Your task to perform on an android device: change text size in settings app Image 0: 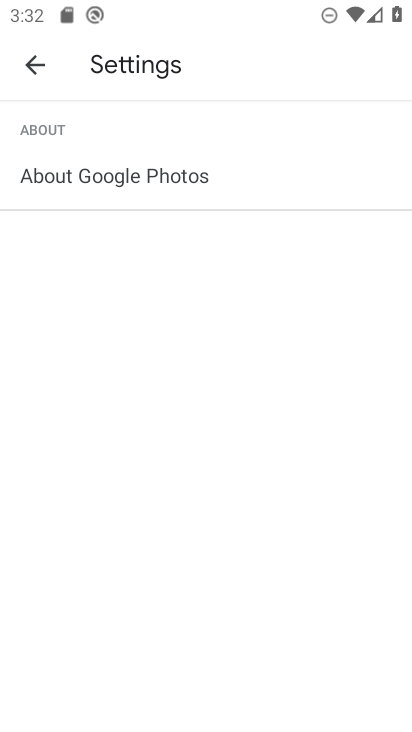
Step 0: press home button
Your task to perform on an android device: change text size in settings app Image 1: 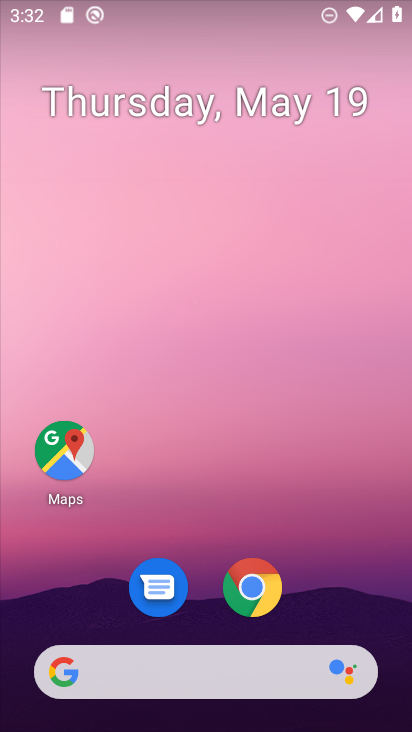
Step 1: drag from (361, 601) to (365, 164)
Your task to perform on an android device: change text size in settings app Image 2: 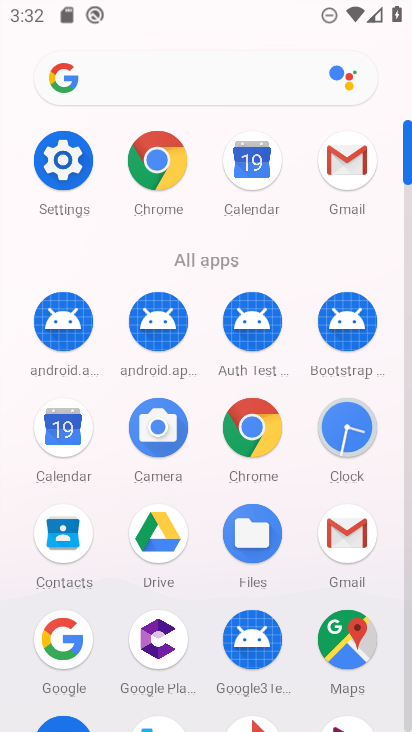
Step 2: click (57, 167)
Your task to perform on an android device: change text size in settings app Image 3: 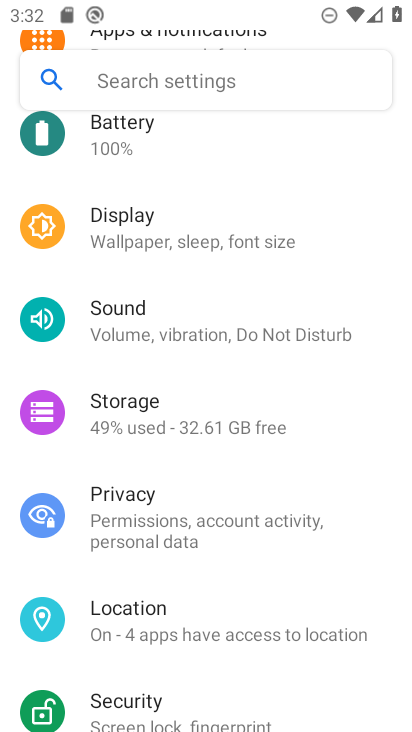
Step 3: drag from (376, 328) to (376, 433)
Your task to perform on an android device: change text size in settings app Image 4: 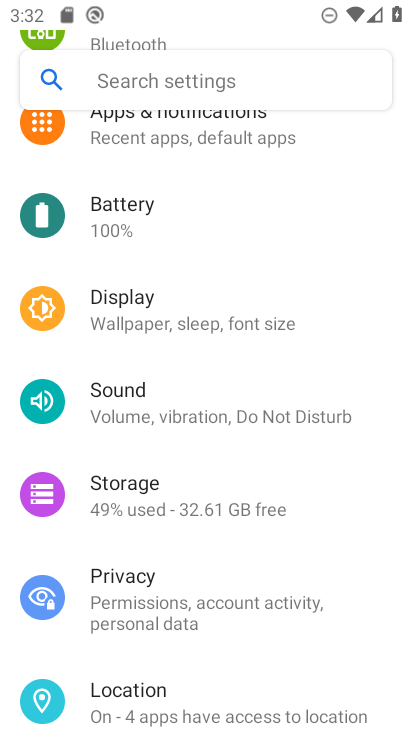
Step 4: drag from (376, 299) to (379, 386)
Your task to perform on an android device: change text size in settings app Image 5: 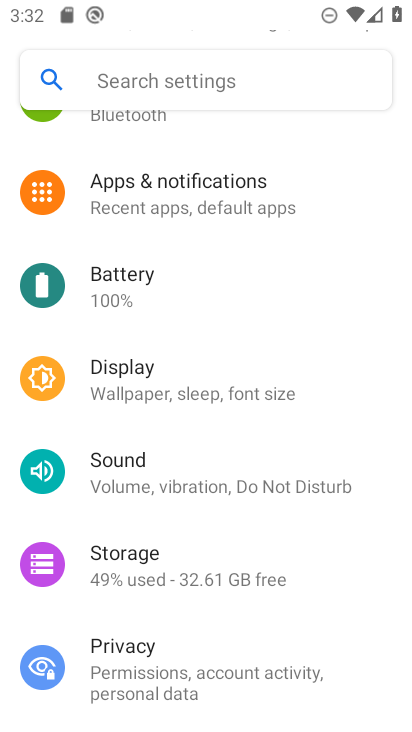
Step 5: drag from (374, 256) to (360, 385)
Your task to perform on an android device: change text size in settings app Image 6: 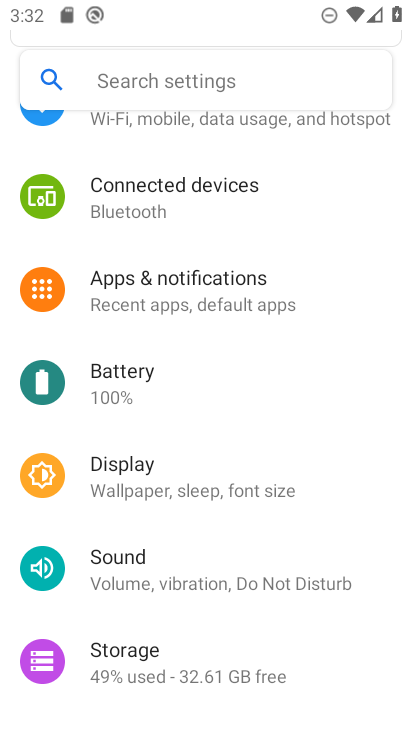
Step 6: drag from (350, 265) to (350, 362)
Your task to perform on an android device: change text size in settings app Image 7: 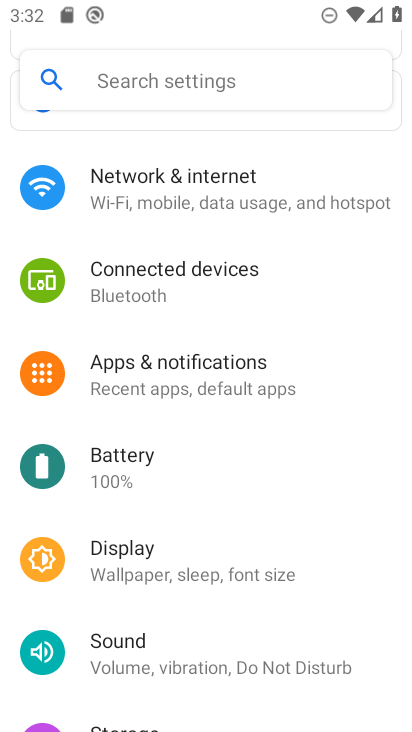
Step 7: drag from (339, 268) to (339, 386)
Your task to perform on an android device: change text size in settings app Image 8: 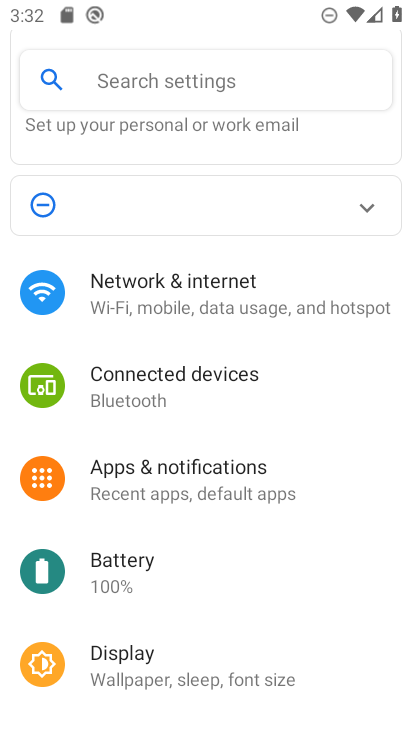
Step 8: drag from (341, 476) to (332, 357)
Your task to perform on an android device: change text size in settings app Image 9: 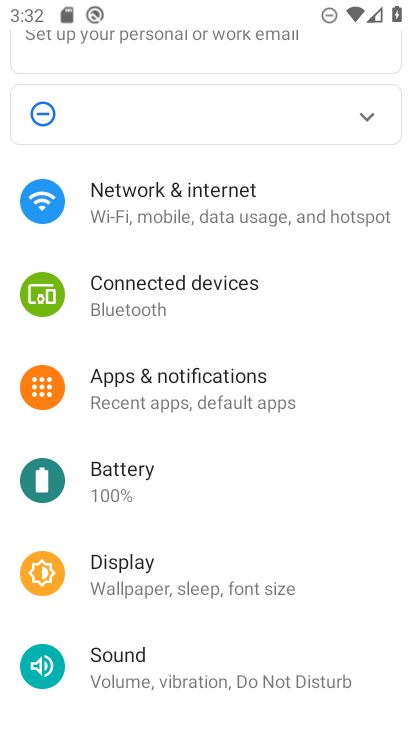
Step 9: drag from (341, 510) to (330, 409)
Your task to perform on an android device: change text size in settings app Image 10: 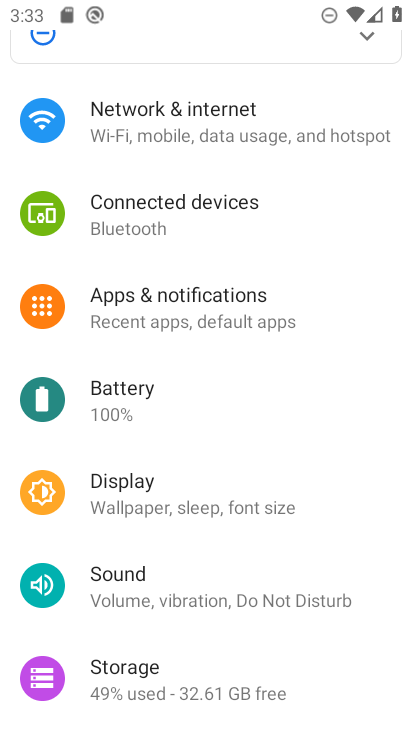
Step 10: drag from (343, 535) to (339, 431)
Your task to perform on an android device: change text size in settings app Image 11: 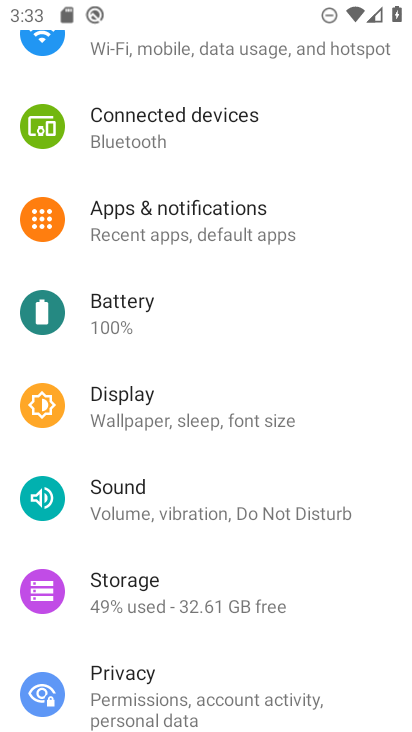
Step 11: drag from (358, 581) to (341, 458)
Your task to perform on an android device: change text size in settings app Image 12: 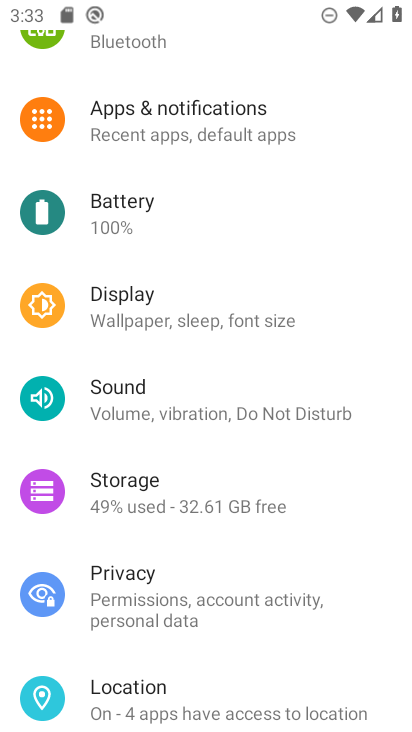
Step 12: drag from (351, 575) to (336, 480)
Your task to perform on an android device: change text size in settings app Image 13: 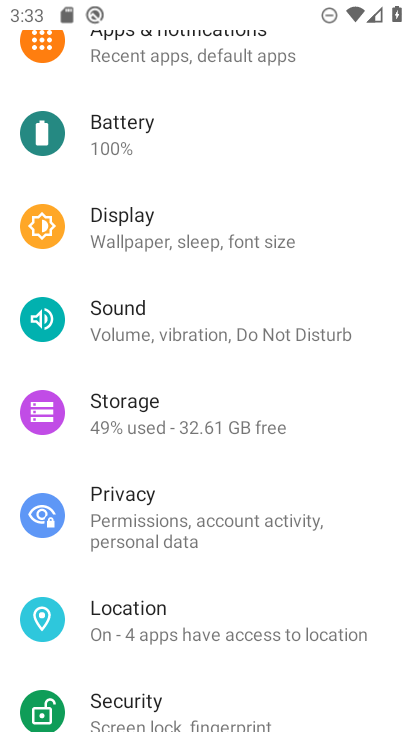
Step 13: drag from (336, 596) to (336, 503)
Your task to perform on an android device: change text size in settings app Image 14: 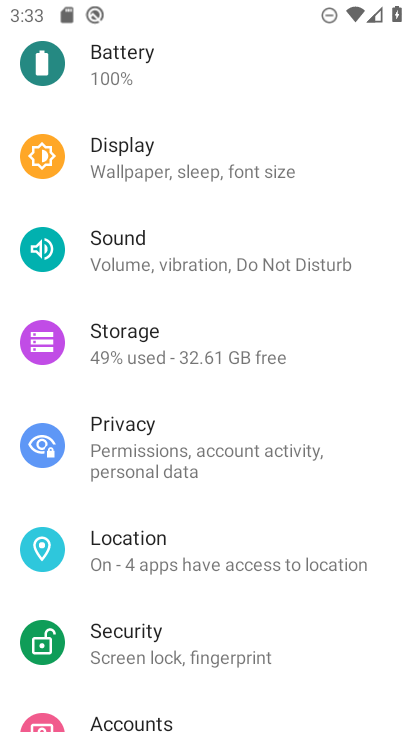
Step 14: click (298, 188)
Your task to perform on an android device: change text size in settings app Image 15: 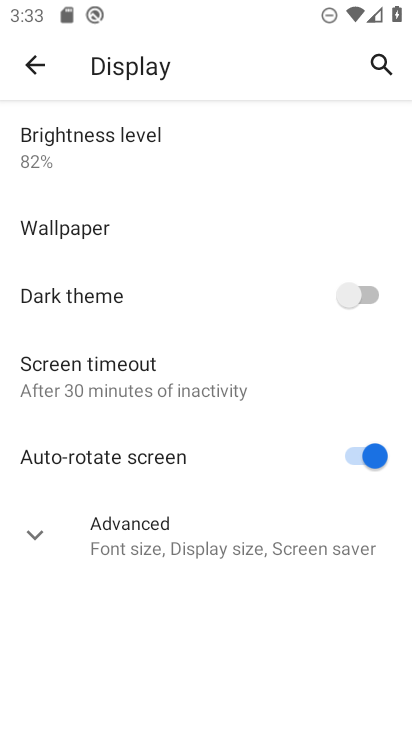
Step 15: click (296, 549)
Your task to perform on an android device: change text size in settings app Image 16: 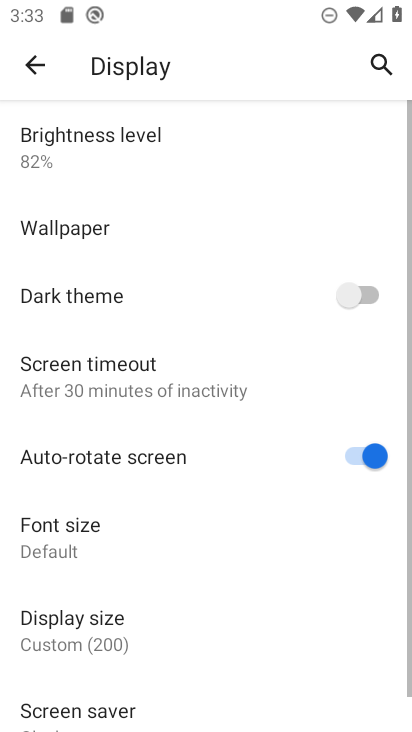
Step 16: drag from (314, 628) to (295, 390)
Your task to perform on an android device: change text size in settings app Image 17: 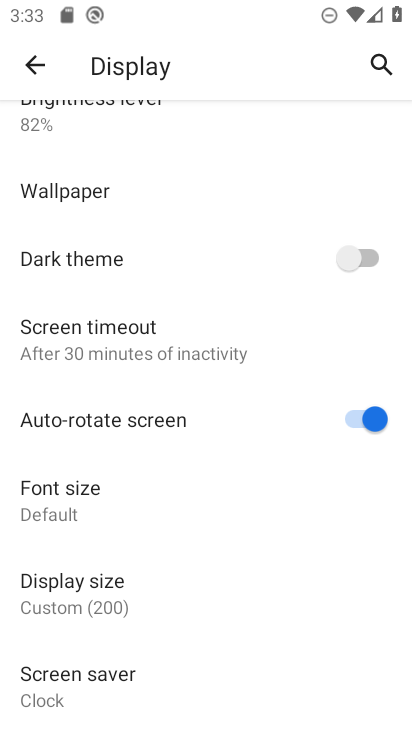
Step 17: click (68, 503)
Your task to perform on an android device: change text size in settings app Image 18: 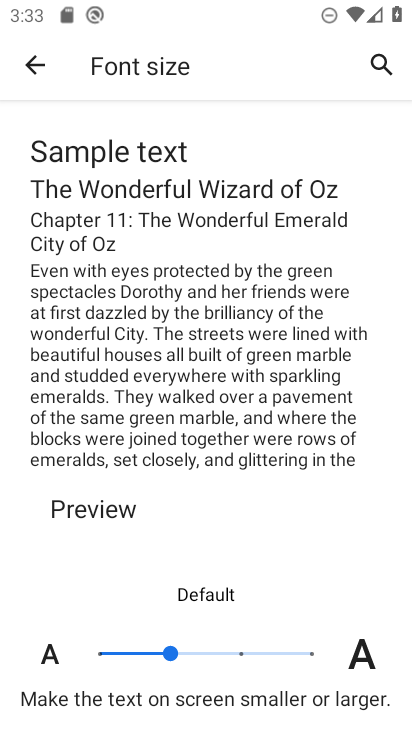
Step 18: click (233, 657)
Your task to perform on an android device: change text size in settings app Image 19: 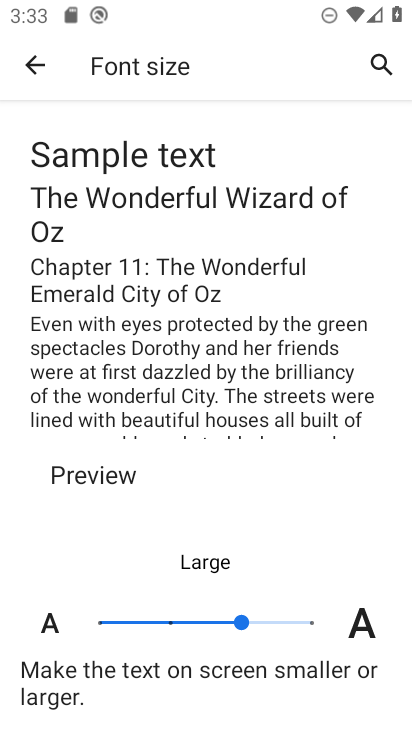
Step 19: task complete